Your task to perform on an android device: turn off data saver in the chrome app Image 0: 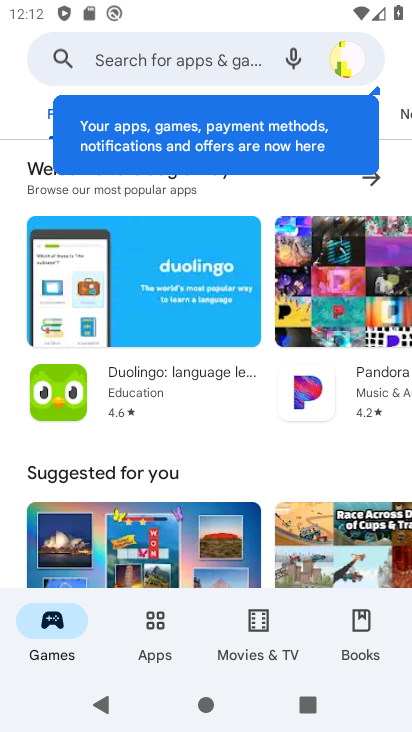
Step 0: press home button
Your task to perform on an android device: turn off data saver in the chrome app Image 1: 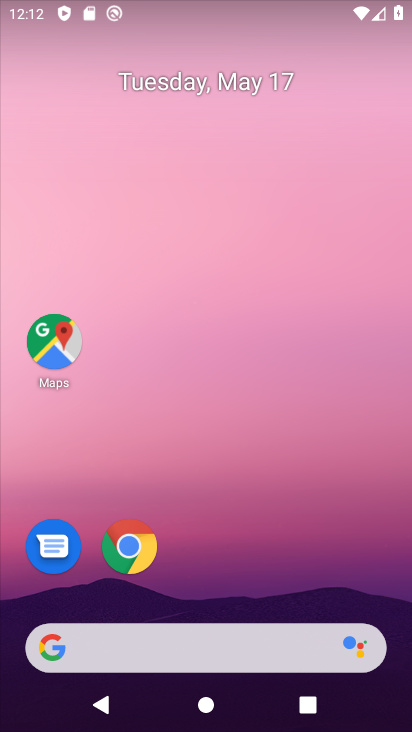
Step 1: click (129, 551)
Your task to perform on an android device: turn off data saver in the chrome app Image 2: 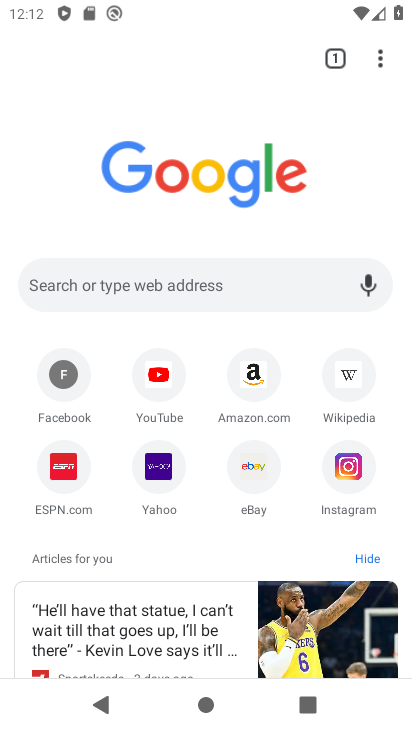
Step 2: click (376, 62)
Your task to perform on an android device: turn off data saver in the chrome app Image 3: 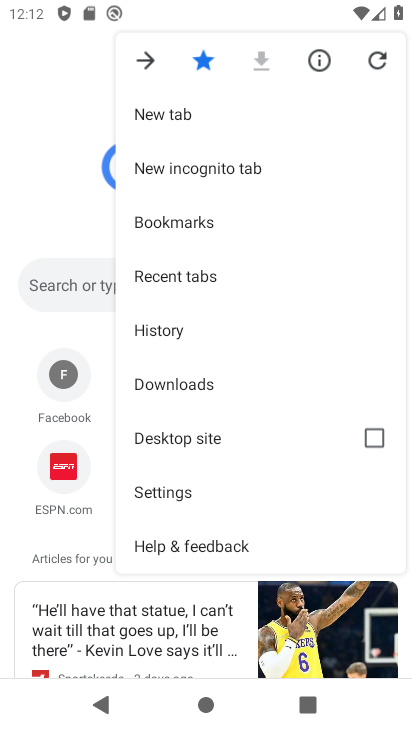
Step 3: click (183, 485)
Your task to perform on an android device: turn off data saver in the chrome app Image 4: 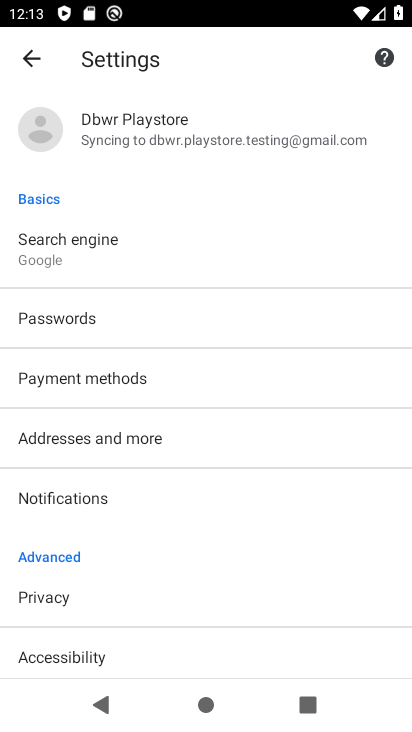
Step 4: drag from (197, 580) to (223, 199)
Your task to perform on an android device: turn off data saver in the chrome app Image 5: 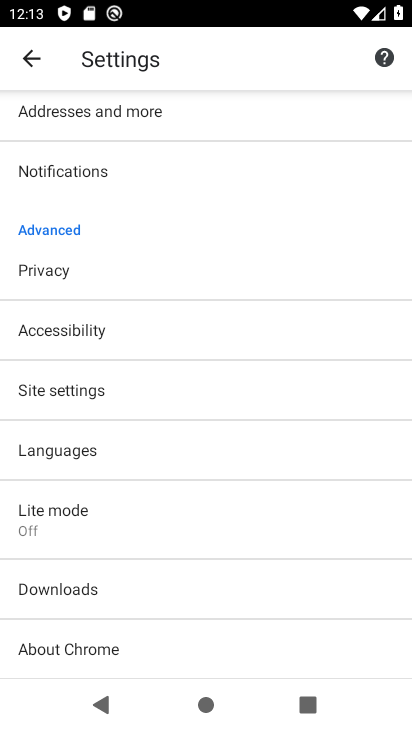
Step 5: click (64, 507)
Your task to perform on an android device: turn off data saver in the chrome app Image 6: 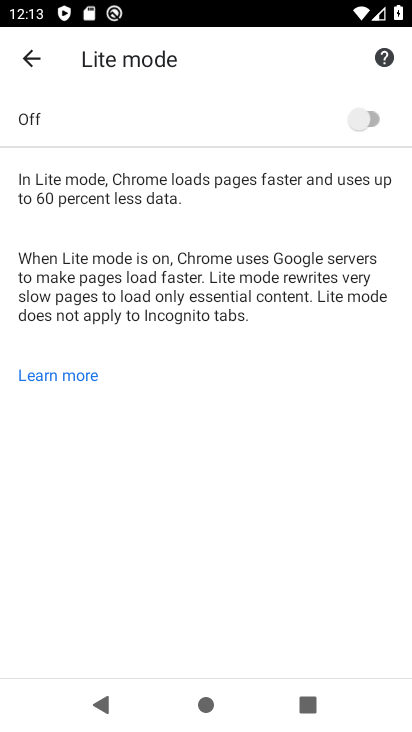
Step 6: task complete